Your task to perform on an android device: find snoozed emails in the gmail app Image 0: 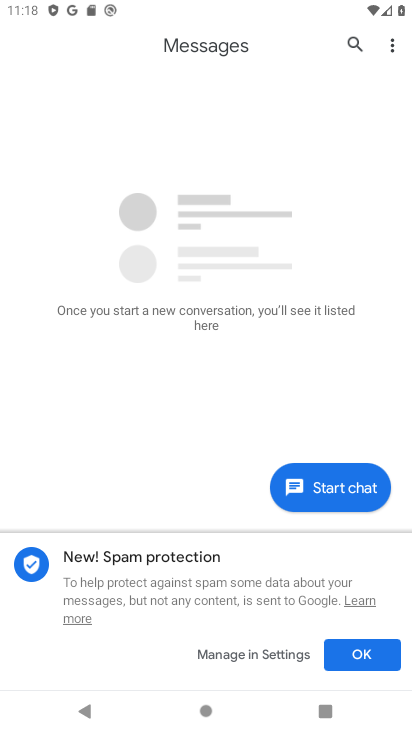
Step 0: press home button
Your task to perform on an android device: find snoozed emails in the gmail app Image 1: 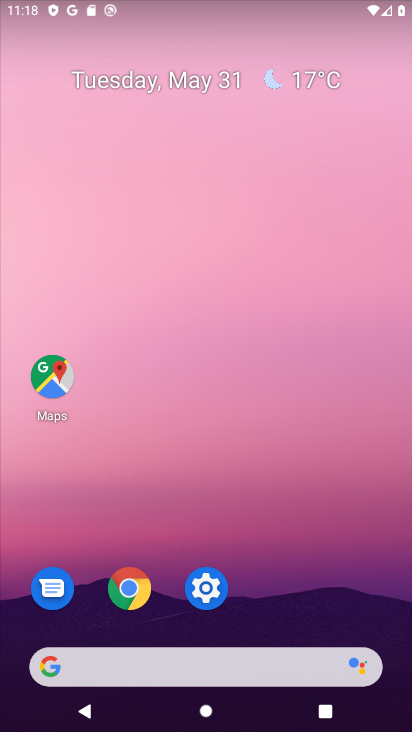
Step 1: drag from (278, 686) to (213, 261)
Your task to perform on an android device: find snoozed emails in the gmail app Image 2: 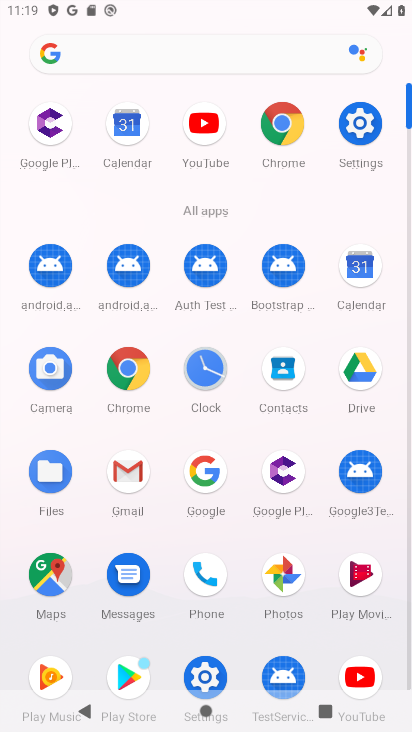
Step 2: click (132, 466)
Your task to perform on an android device: find snoozed emails in the gmail app Image 3: 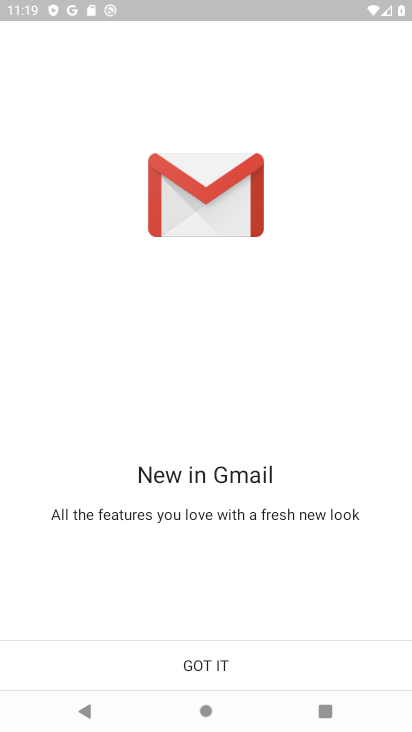
Step 3: click (210, 668)
Your task to perform on an android device: find snoozed emails in the gmail app Image 4: 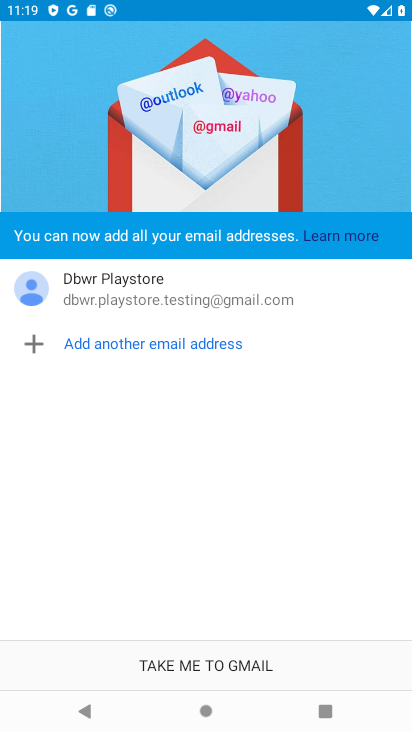
Step 4: click (210, 668)
Your task to perform on an android device: find snoozed emails in the gmail app Image 5: 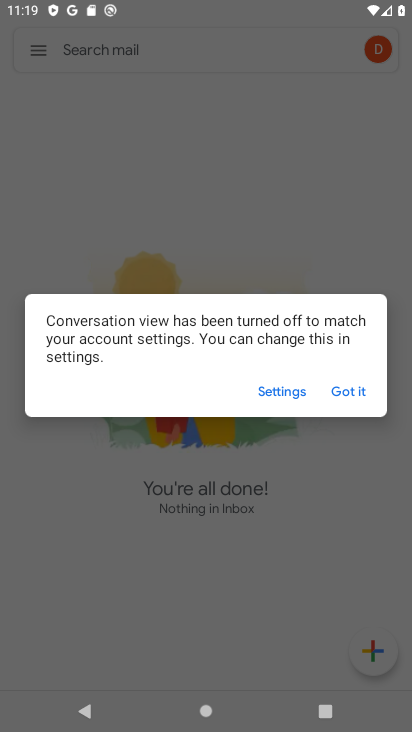
Step 5: click (352, 390)
Your task to perform on an android device: find snoozed emails in the gmail app Image 6: 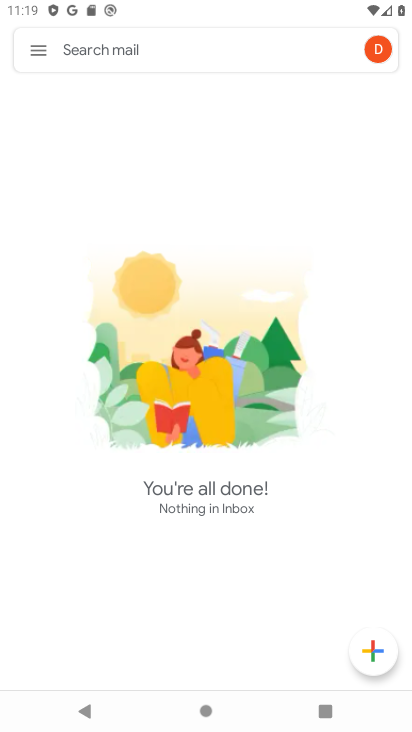
Step 6: click (41, 46)
Your task to perform on an android device: find snoozed emails in the gmail app Image 7: 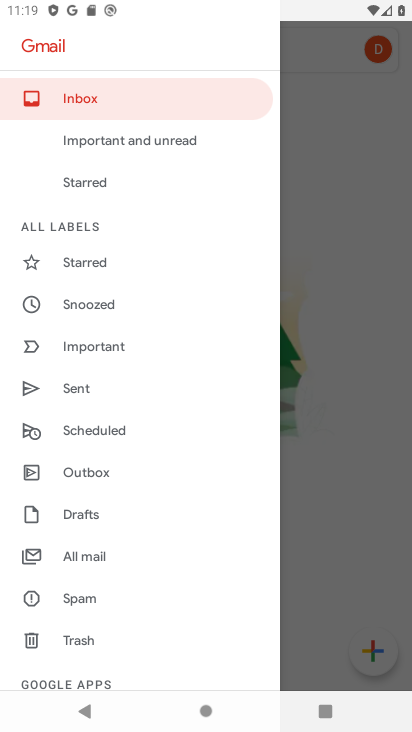
Step 7: click (97, 300)
Your task to perform on an android device: find snoozed emails in the gmail app Image 8: 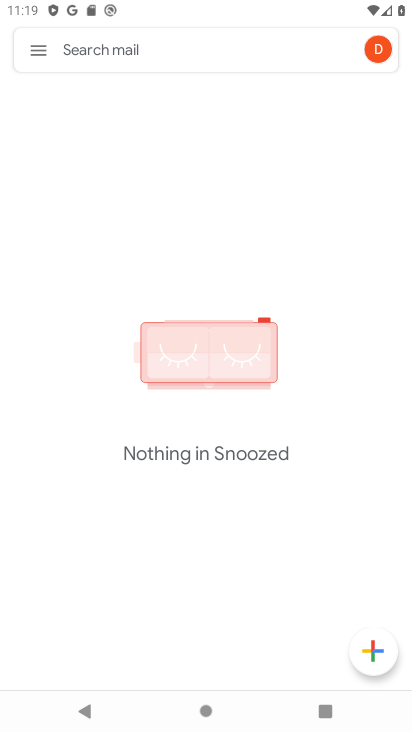
Step 8: task complete